Your task to perform on an android device: open a new tab in the chrome app Image 0: 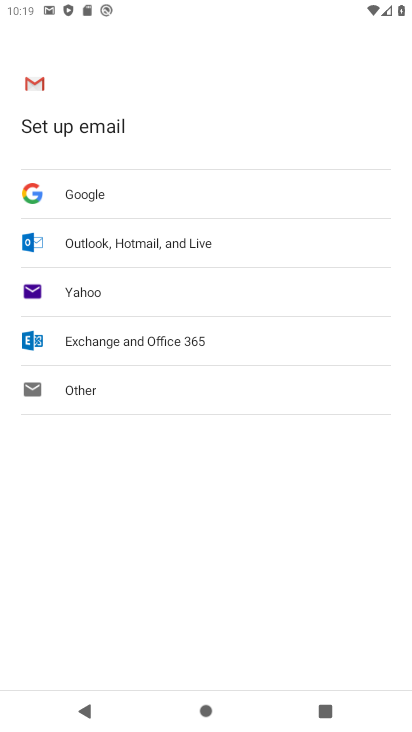
Step 0: drag from (208, 539) to (330, 148)
Your task to perform on an android device: open a new tab in the chrome app Image 1: 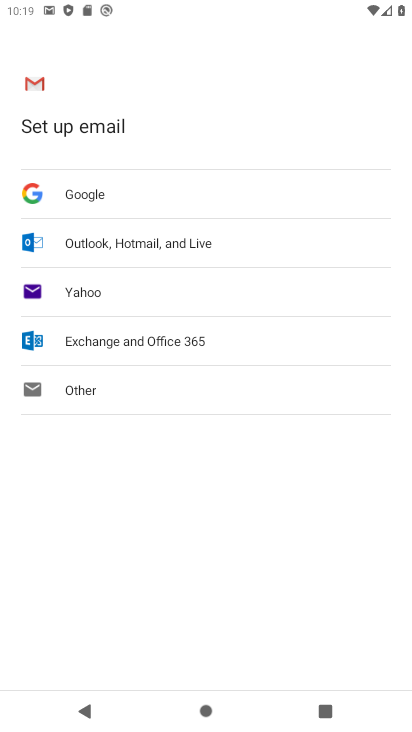
Step 1: press home button
Your task to perform on an android device: open a new tab in the chrome app Image 2: 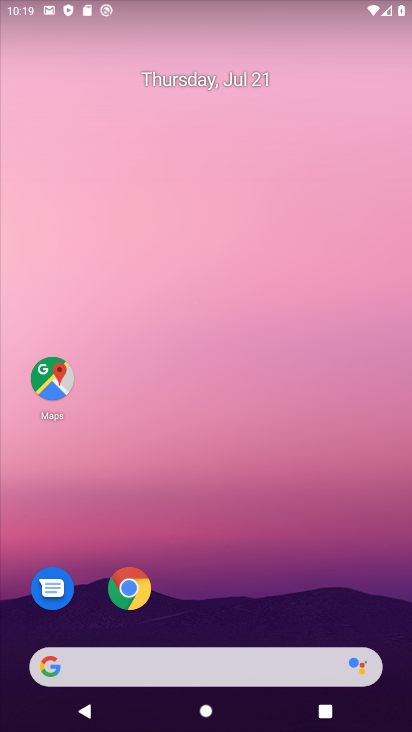
Step 2: drag from (170, 601) to (238, 93)
Your task to perform on an android device: open a new tab in the chrome app Image 3: 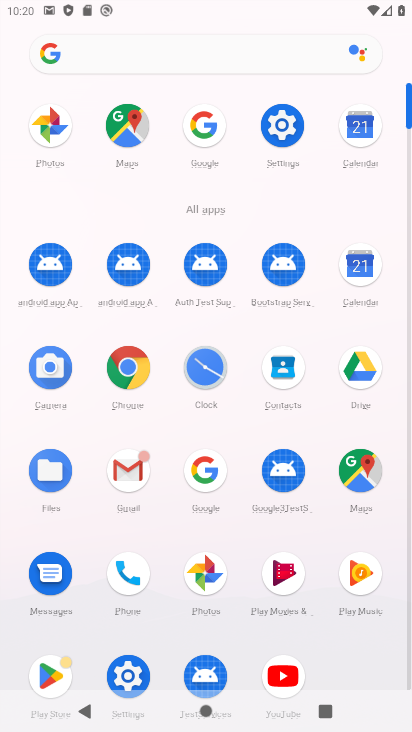
Step 3: click (134, 359)
Your task to perform on an android device: open a new tab in the chrome app Image 4: 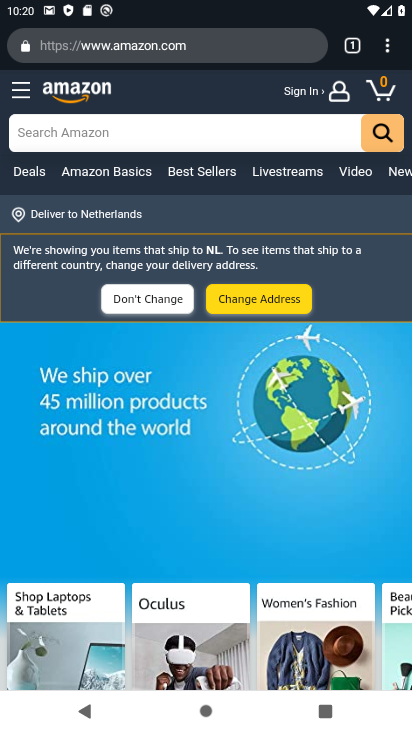
Step 4: drag from (218, 570) to (236, 61)
Your task to perform on an android device: open a new tab in the chrome app Image 5: 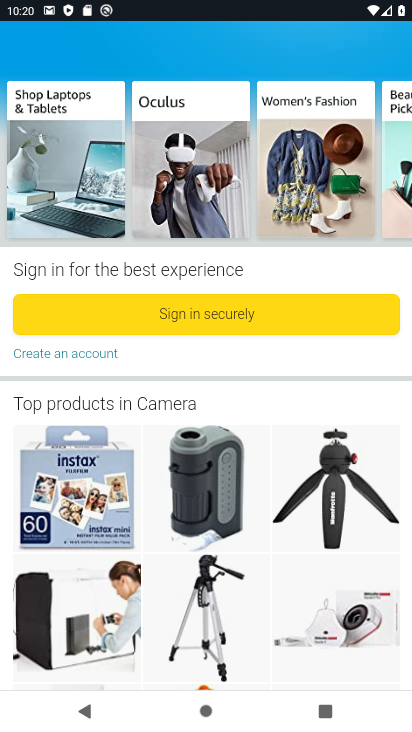
Step 5: drag from (209, 532) to (290, 138)
Your task to perform on an android device: open a new tab in the chrome app Image 6: 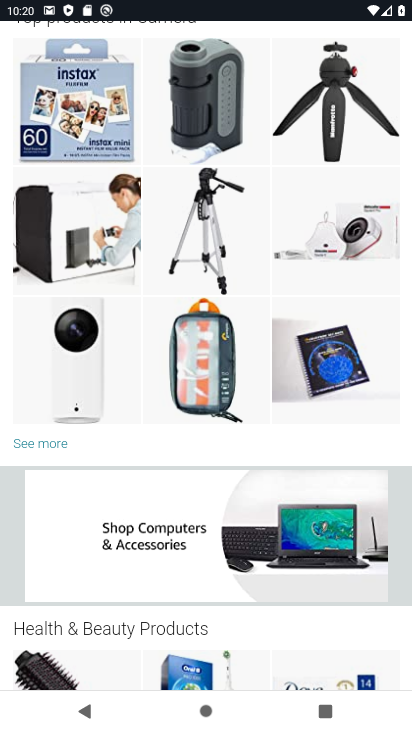
Step 6: drag from (357, 72) to (323, 727)
Your task to perform on an android device: open a new tab in the chrome app Image 7: 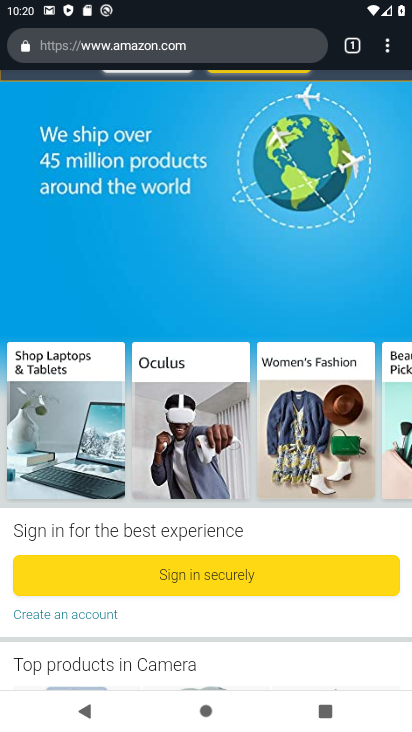
Step 7: click (391, 51)
Your task to perform on an android device: open a new tab in the chrome app Image 8: 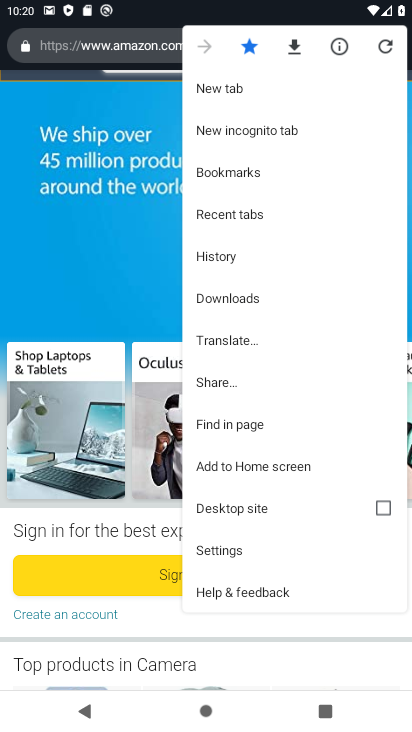
Step 8: click (281, 96)
Your task to perform on an android device: open a new tab in the chrome app Image 9: 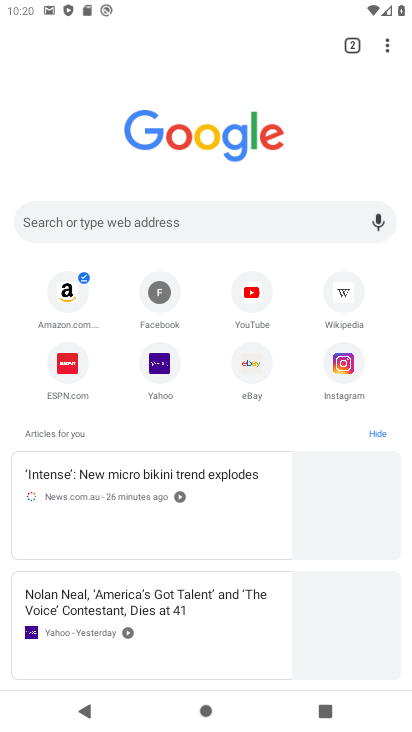
Step 9: task complete